Your task to perform on an android device: Search for "alienware aurora" on newegg, select the first entry, add it to the cart, then select checkout. Image 0: 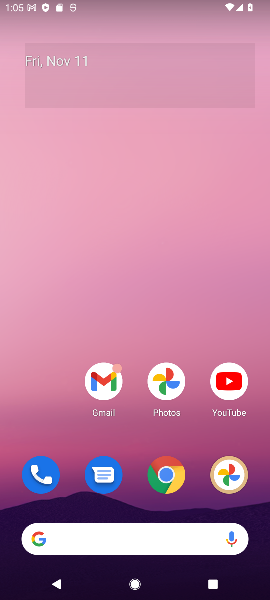
Step 0: drag from (123, 522) to (184, 143)
Your task to perform on an android device: Search for "alienware aurora" on newegg, select the first entry, add it to the cart, then select checkout. Image 1: 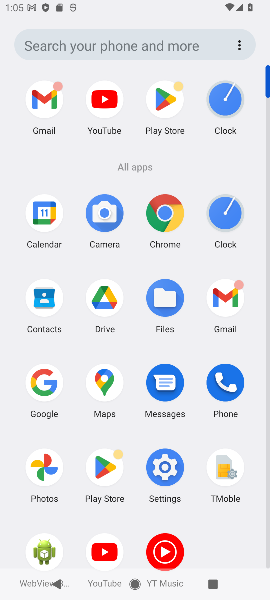
Step 1: click (169, 220)
Your task to perform on an android device: Search for "alienware aurora" on newegg, select the first entry, add it to the cart, then select checkout. Image 2: 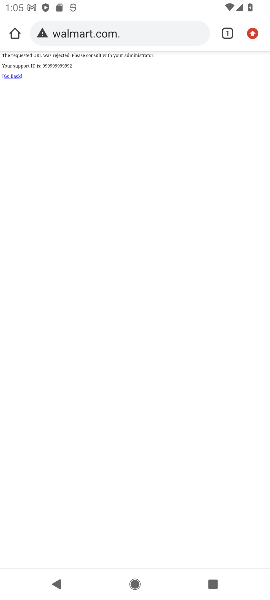
Step 2: click (117, 25)
Your task to perform on an android device: Search for "alienware aurora" on newegg, select the first entry, add it to the cart, then select checkout. Image 3: 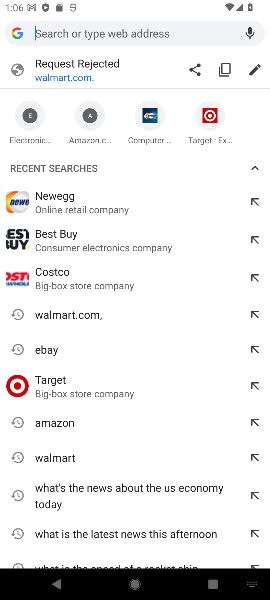
Step 3: type "newegg"
Your task to perform on an android device: Search for "alienware aurora" on newegg, select the first entry, add it to the cart, then select checkout. Image 4: 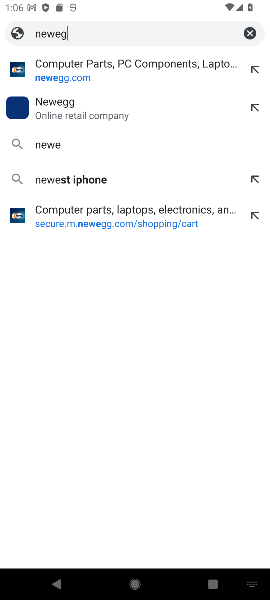
Step 4: press enter
Your task to perform on an android device: Search for "alienware aurora" on newegg, select the first entry, add it to the cart, then select checkout. Image 5: 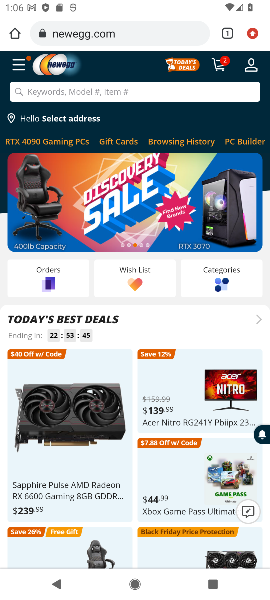
Step 5: click (154, 96)
Your task to perform on an android device: Search for "alienware aurora" on newegg, select the first entry, add it to the cart, then select checkout. Image 6: 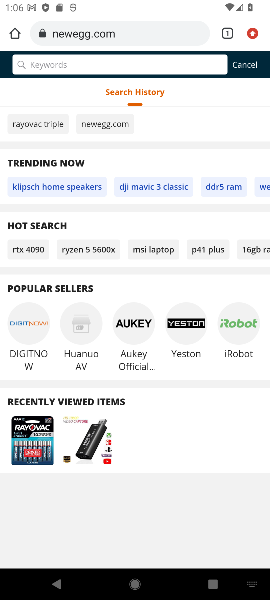
Step 6: type ""
Your task to perform on an android device: Search for "alienware aurora" on newegg, select the first entry, add it to the cart, then select checkout. Image 7: 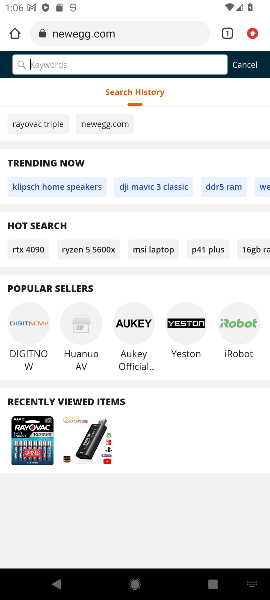
Step 7: type "alienware aurora"
Your task to perform on an android device: Search for "alienware aurora" on newegg, select the first entry, add it to the cart, then select checkout. Image 8: 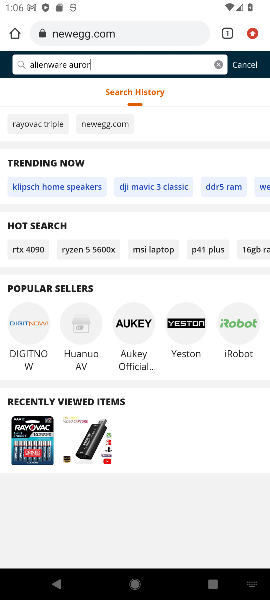
Step 8: press enter
Your task to perform on an android device: Search for "alienware aurora" on newegg, select the first entry, add it to the cart, then select checkout. Image 9: 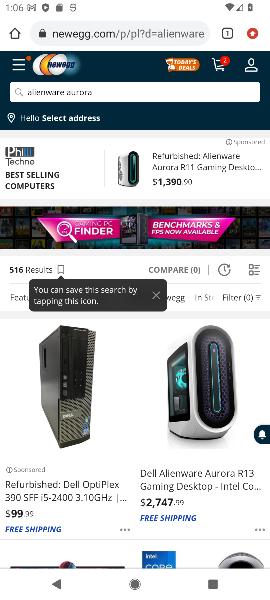
Step 9: click (42, 477)
Your task to perform on an android device: Search for "alienware aurora" on newegg, select the first entry, add it to the cart, then select checkout. Image 10: 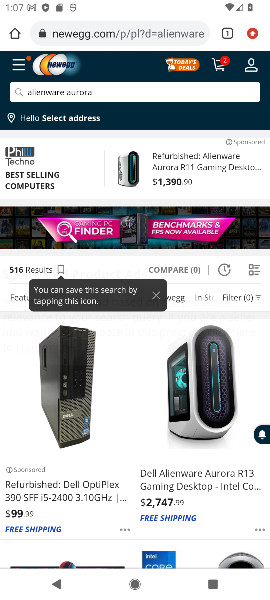
Step 10: click (33, 450)
Your task to perform on an android device: Search for "alienware aurora" on newegg, select the first entry, add it to the cart, then select checkout. Image 11: 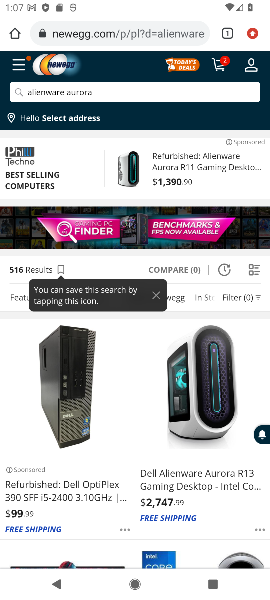
Step 11: click (93, 346)
Your task to perform on an android device: Search for "alienware aurora" on newegg, select the first entry, add it to the cart, then select checkout. Image 12: 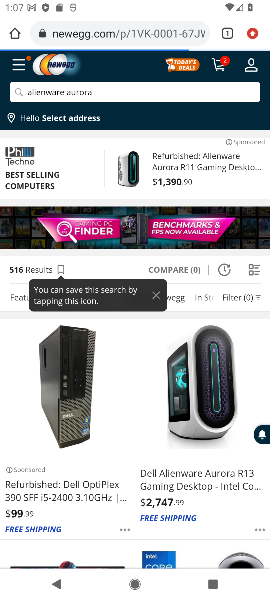
Step 12: click (38, 500)
Your task to perform on an android device: Search for "alienware aurora" on newegg, select the first entry, add it to the cart, then select checkout. Image 13: 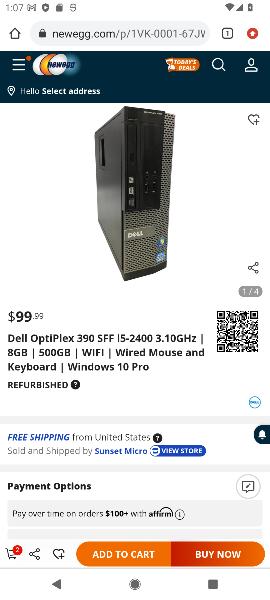
Step 13: click (134, 551)
Your task to perform on an android device: Search for "alienware aurora" on newegg, select the first entry, add it to the cart, then select checkout. Image 14: 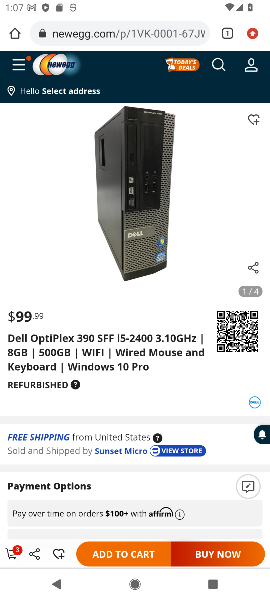
Step 14: click (11, 549)
Your task to perform on an android device: Search for "alienware aurora" on newegg, select the first entry, add it to the cart, then select checkout. Image 15: 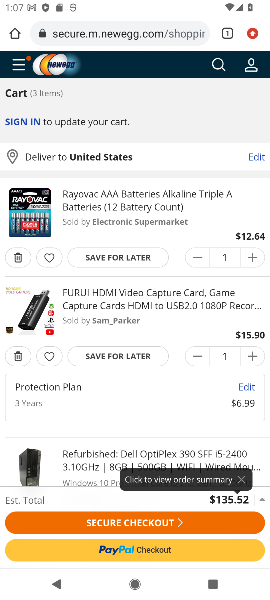
Step 15: click (127, 517)
Your task to perform on an android device: Search for "alienware aurora" on newegg, select the first entry, add it to the cart, then select checkout. Image 16: 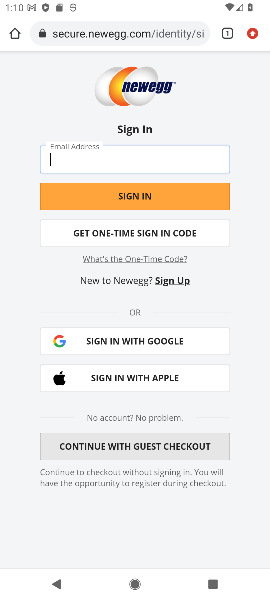
Step 16: task complete